Your task to perform on an android device: Go to settings Image 0: 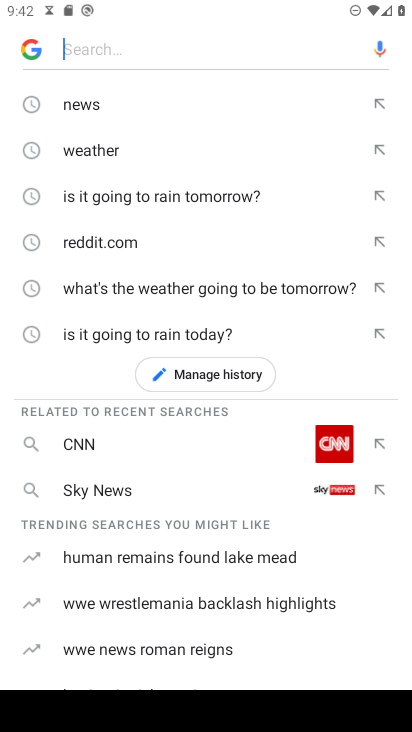
Step 0: press home button
Your task to perform on an android device: Go to settings Image 1: 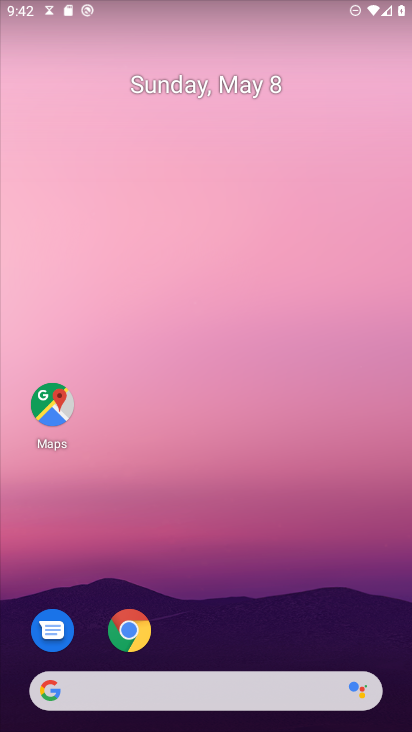
Step 1: drag from (177, 684) to (317, 67)
Your task to perform on an android device: Go to settings Image 2: 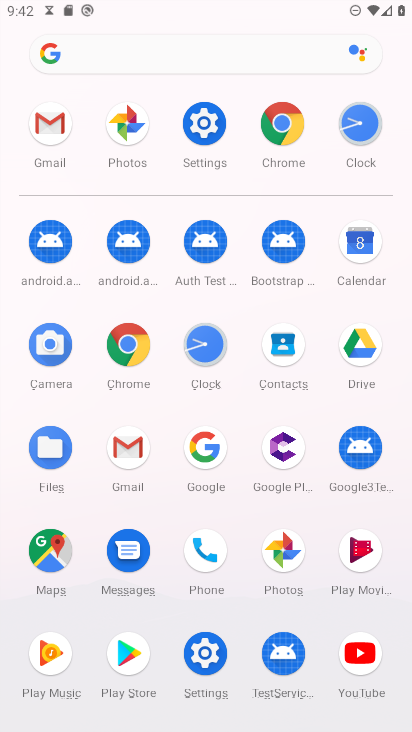
Step 2: click (202, 125)
Your task to perform on an android device: Go to settings Image 3: 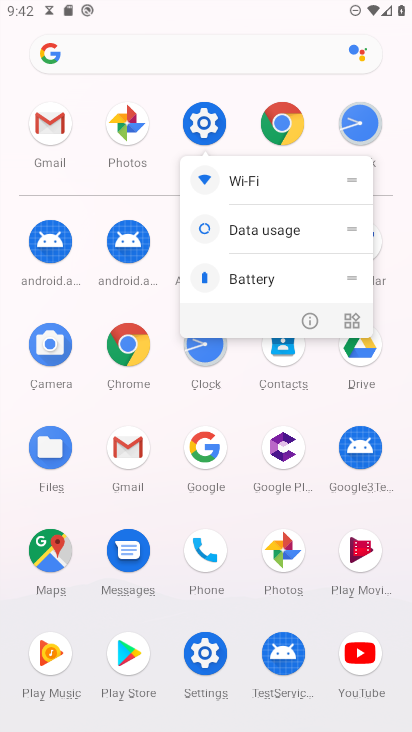
Step 3: click (214, 128)
Your task to perform on an android device: Go to settings Image 4: 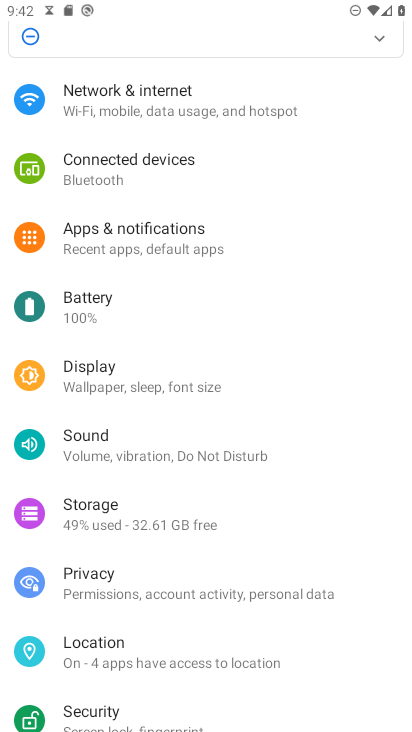
Step 4: task complete